Your task to perform on an android device: allow cookies in the chrome app Image 0: 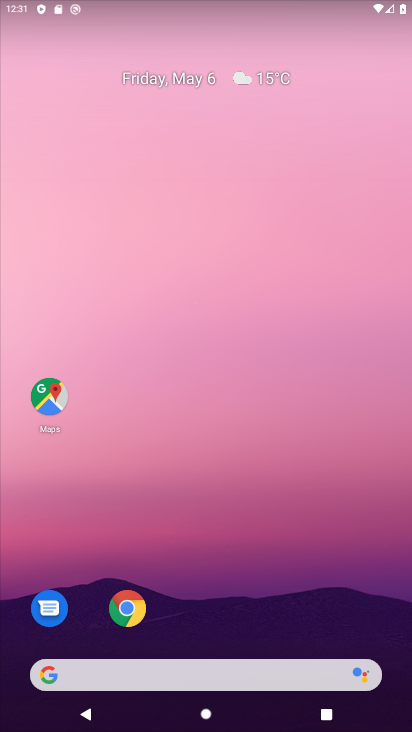
Step 0: click (204, 280)
Your task to perform on an android device: allow cookies in the chrome app Image 1: 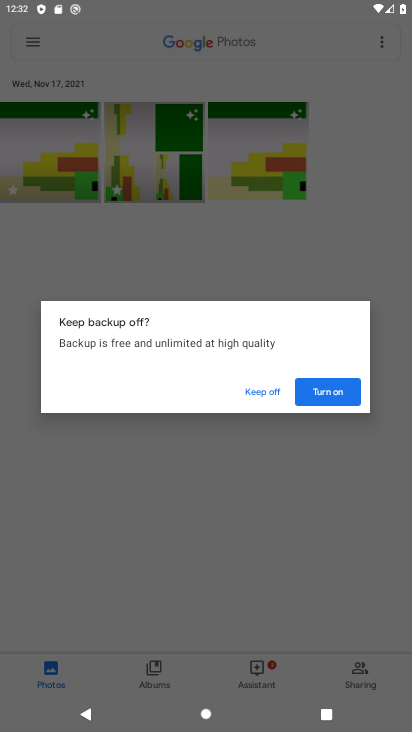
Step 1: press home button
Your task to perform on an android device: allow cookies in the chrome app Image 2: 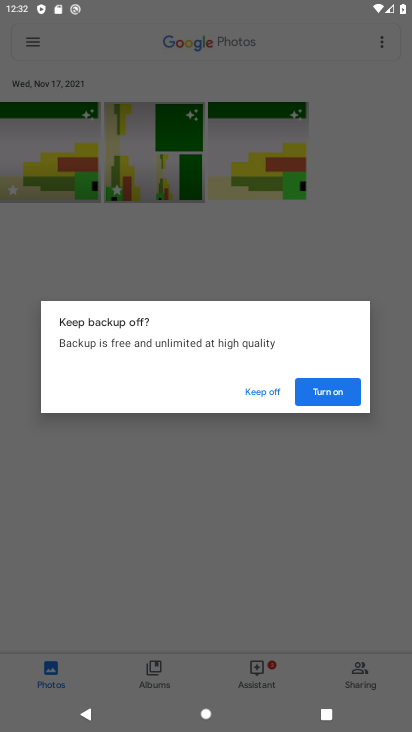
Step 2: press home button
Your task to perform on an android device: allow cookies in the chrome app Image 3: 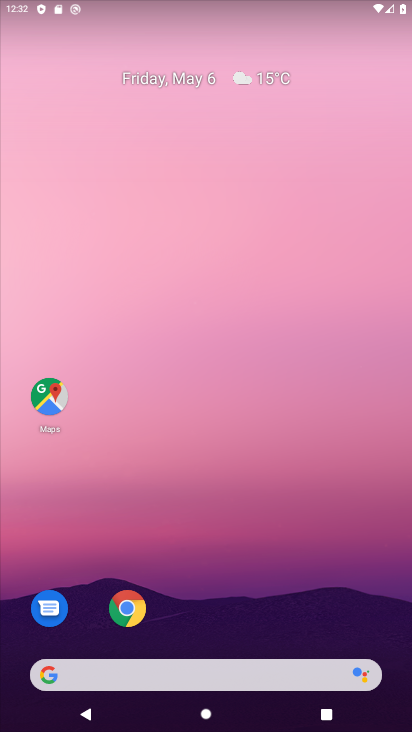
Step 3: drag from (196, 606) to (236, 247)
Your task to perform on an android device: allow cookies in the chrome app Image 4: 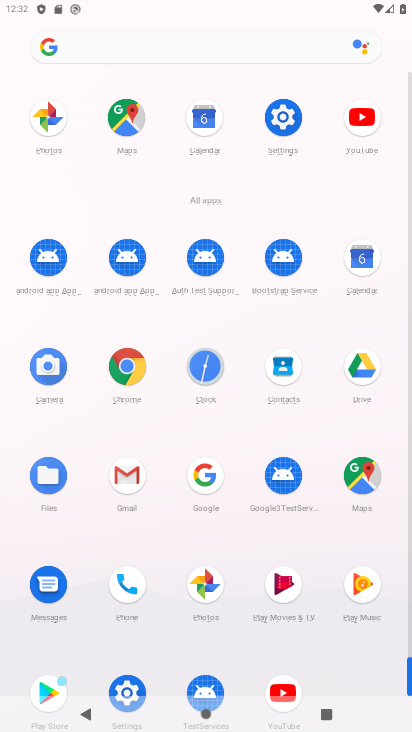
Step 4: click (128, 362)
Your task to perform on an android device: allow cookies in the chrome app Image 5: 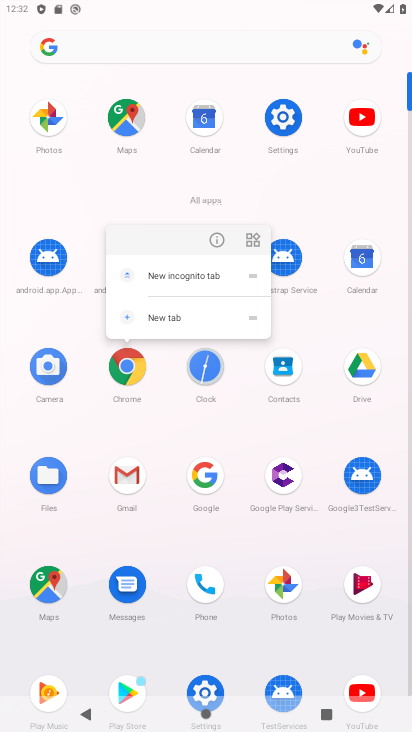
Step 5: click (213, 246)
Your task to perform on an android device: allow cookies in the chrome app Image 6: 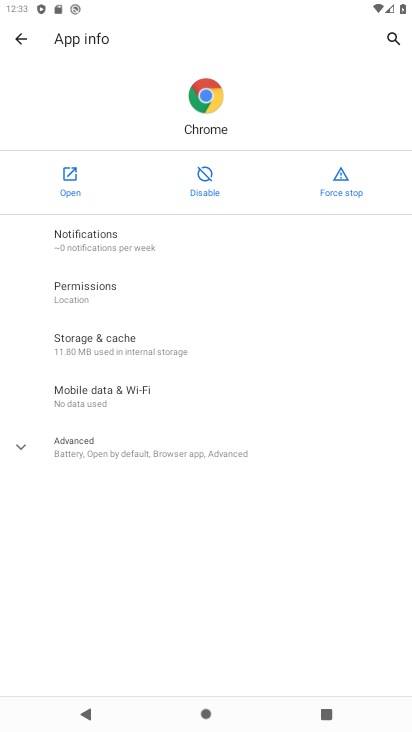
Step 6: click (72, 176)
Your task to perform on an android device: allow cookies in the chrome app Image 7: 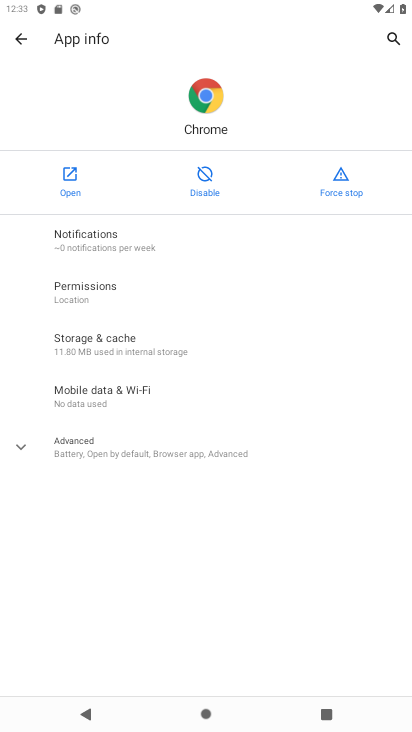
Step 7: click (72, 175)
Your task to perform on an android device: allow cookies in the chrome app Image 8: 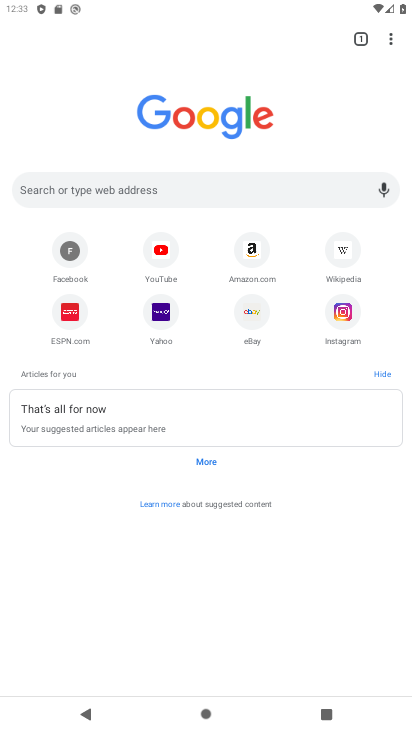
Step 8: drag from (219, 137) to (269, 616)
Your task to perform on an android device: allow cookies in the chrome app Image 9: 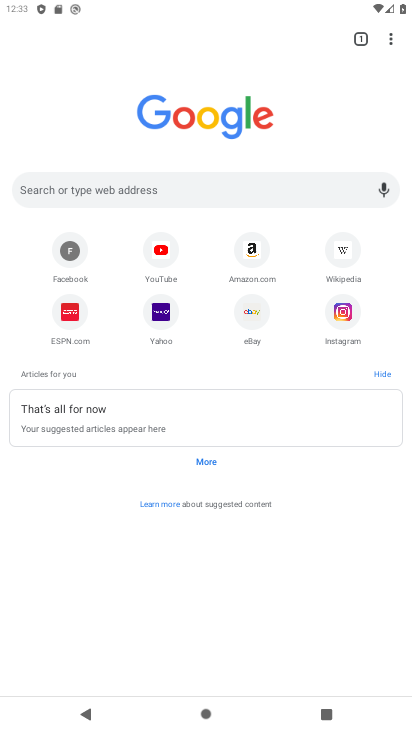
Step 9: click (387, 62)
Your task to perform on an android device: allow cookies in the chrome app Image 10: 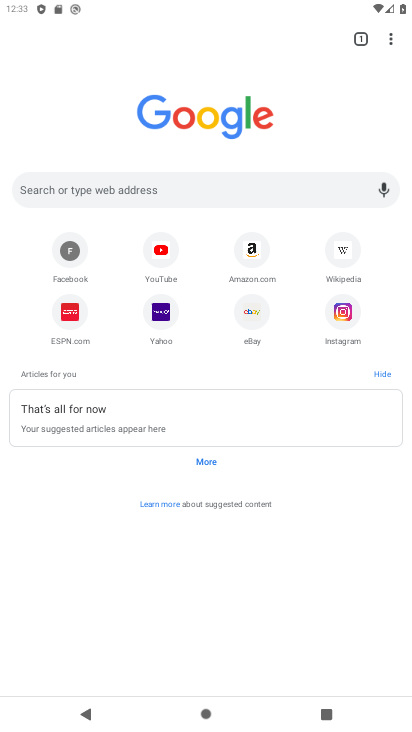
Step 10: click (394, 46)
Your task to perform on an android device: allow cookies in the chrome app Image 11: 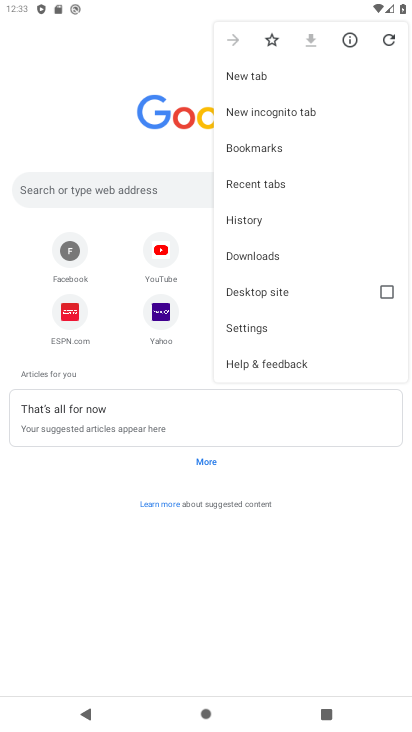
Step 11: click (287, 327)
Your task to perform on an android device: allow cookies in the chrome app Image 12: 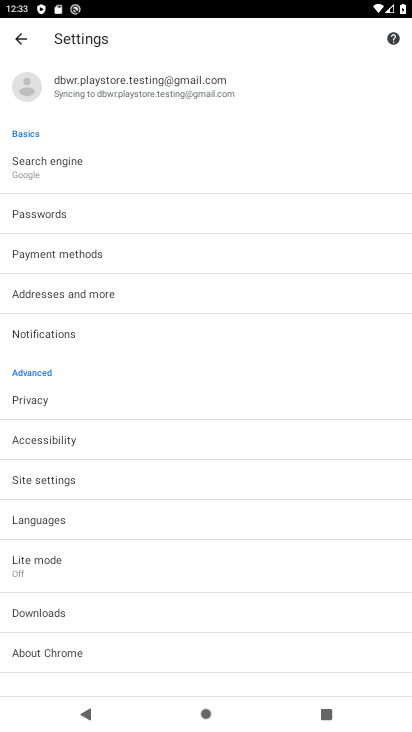
Step 12: click (46, 482)
Your task to perform on an android device: allow cookies in the chrome app Image 13: 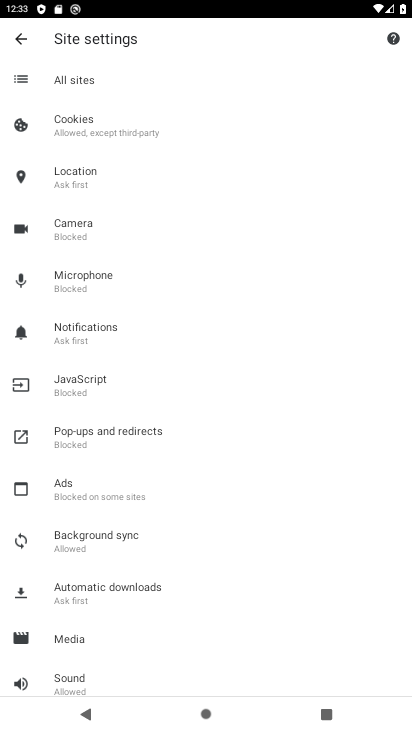
Step 13: click (100, 110)
Your task to perform on an android device: allow cookies in the chrome app Image 14: 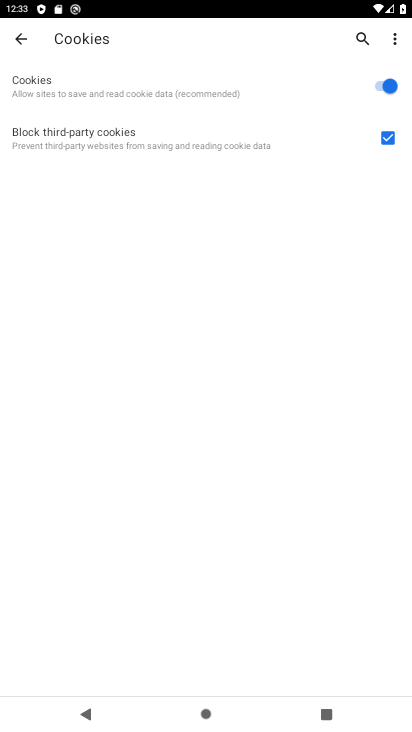
Step 14: task complete